Your task to perform on an android device: star an email in the gmail app Image 0: 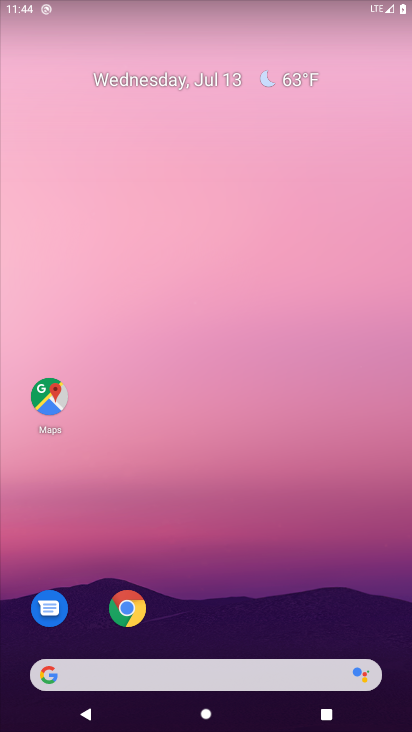
Step 0: press home button
Your task to perform on an android device: star an email in the gmail app Image 1: 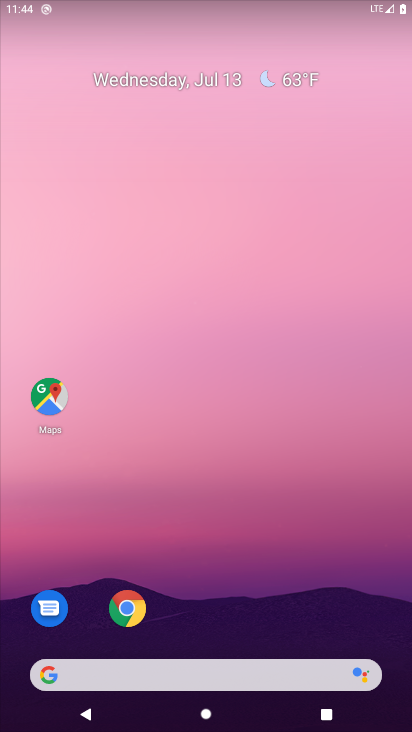
Step 1: drag from (290, 617) to (310, 5)
Your task to perform on an android device: star an email in the gmail app Image 2: 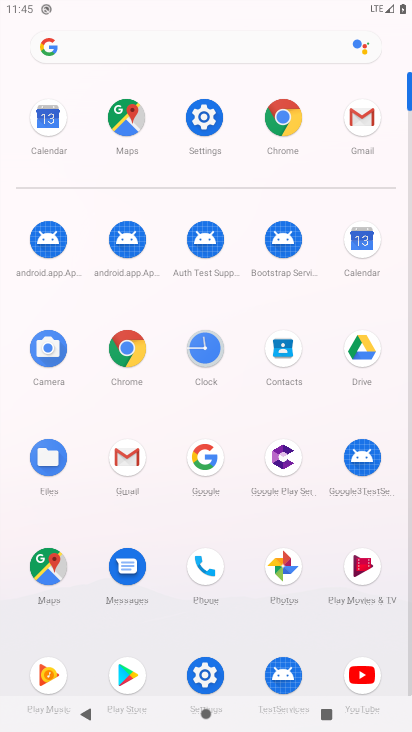
Step 2: click (140, 449)
Your task to perform on an android device: star an email in the gmail app Image 3: 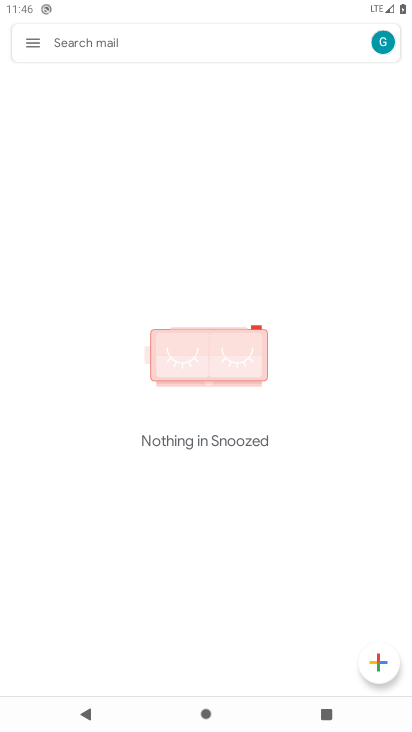
Step 3: task complete